Your task to perform on an android device: Open CNN.com Image 0: 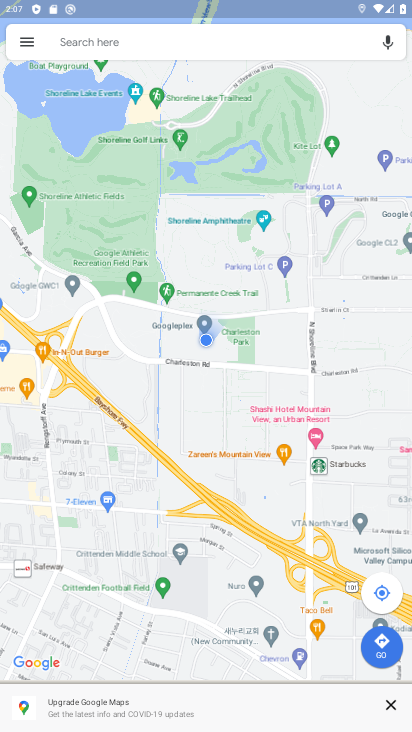
Step 0: press home button
Your task to perform on an android device: Open CNN.com Image 1: 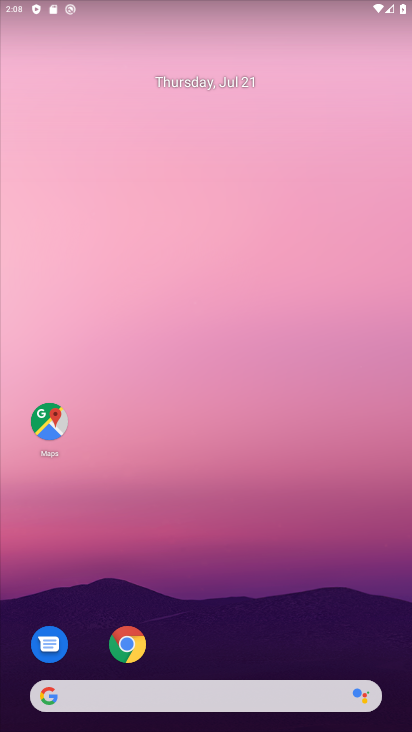
Step 1: click (120, 653)
Your task to perform on an android device: Open CNN.com Image 2: 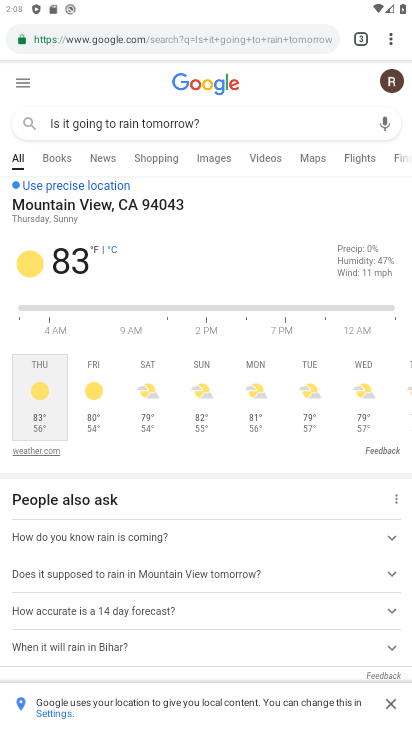
Step 2: click (240, 34)
Your task to perform on an android device: Open CNN.com Image 3: 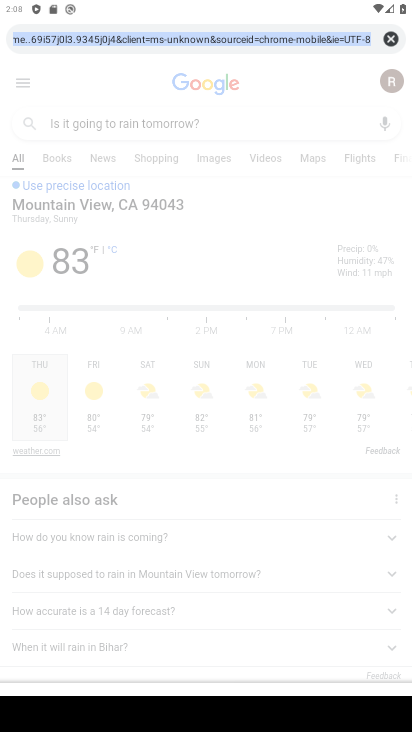
Step 3: type "cnn.com"
Your task to perform on an android device: Open CNN.com Image 4: 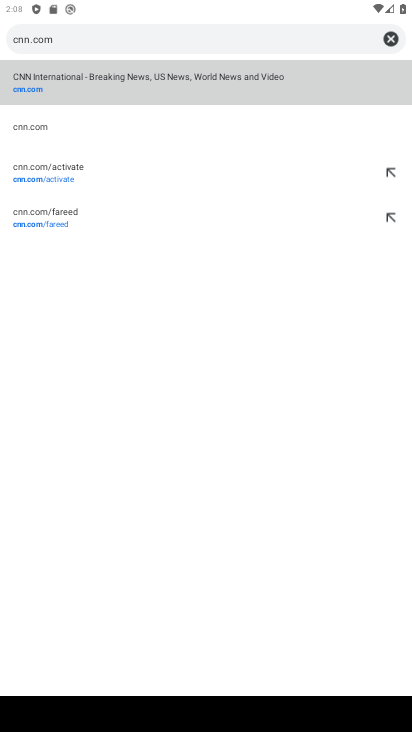
Step 4: click (220, 63)
Your task to perform on an android device: Open CNN.com Image 5: 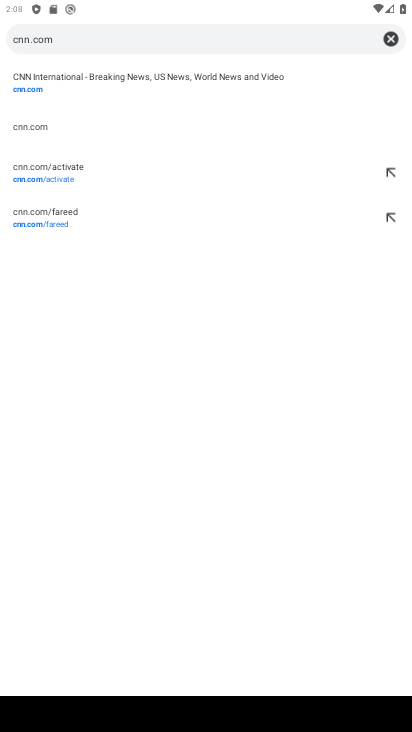
Step 5: click (225, 85)
Your task to perform on an android device: Open CNN.com Image 6: 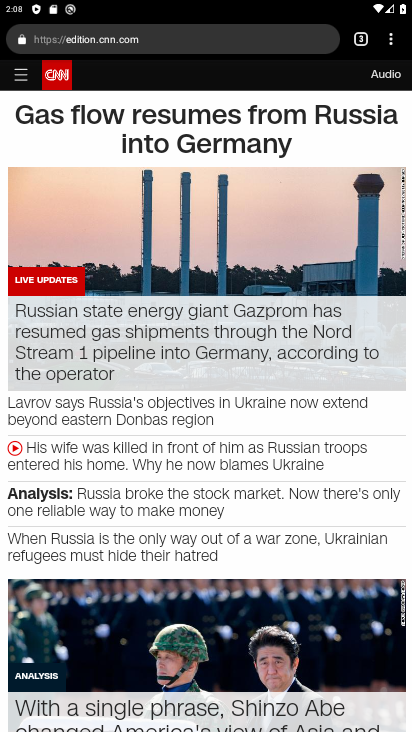
Step 6: task complete